Your task to perform on an android device: Search for seafood restaurants on Google Maps Image 0: 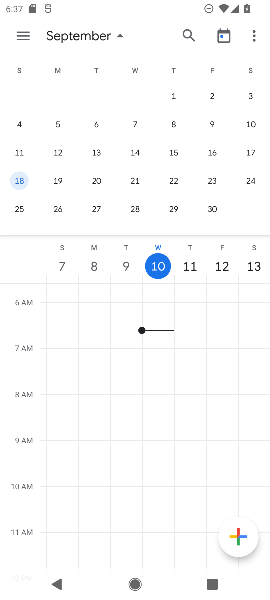
Step 0: press home button
Your task to perform on an android device: Search for seafood restaurants on Google Maps Image 1: 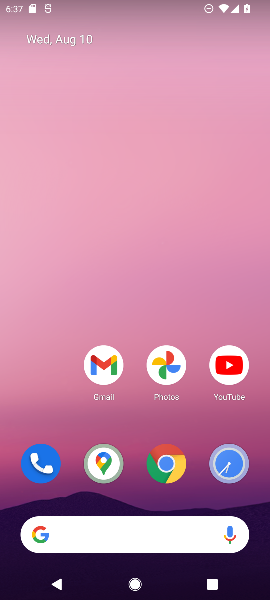
Step 1: click (104, 465)
Your task to perform on an android device: Search for seafood restaurants on Google Maps Image 2: 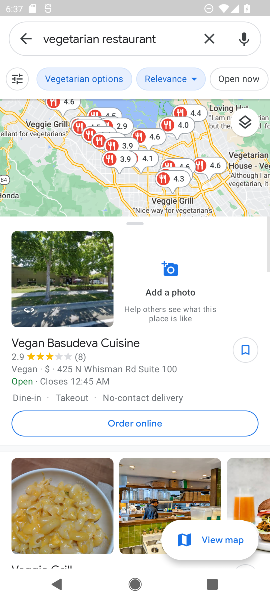
Step 2: click (207, 40)
Your task to perform on an android device: Search for seafood restaurants on Google Maps Image 3: 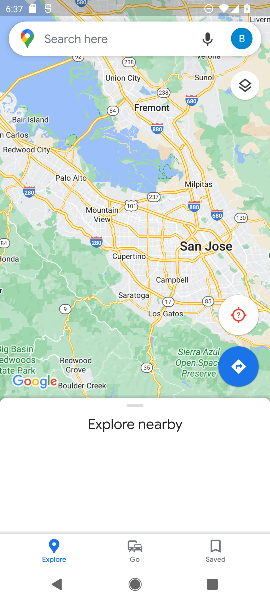
Step 3: click (84, 41)
Your task to perform on an android device: Search for seafood restaurants on Google Maps Image 4: 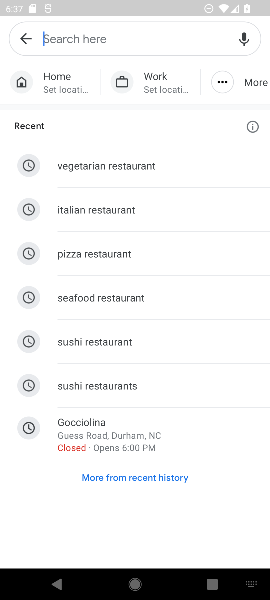
Step 4: click (105, 295)
Your task to perform on an android device: Search for seafood restaurants on Google Maps Image 5: 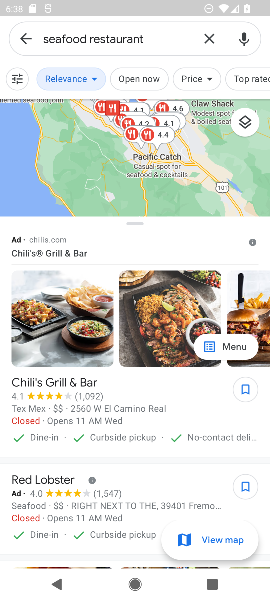
Step 5: task complete